Your task to perform on an android device: turn off smart reply in the gmail app Image 0: 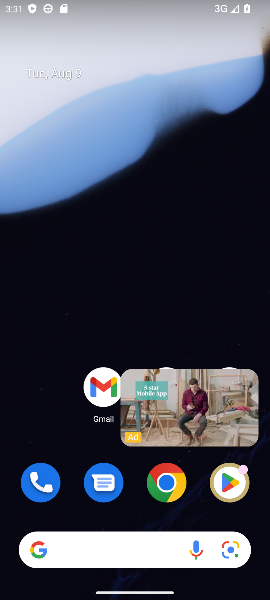
Step 0: click (243, 378)
Your task to perform on an android device: turn off smart reply in the gmail app Image 1: 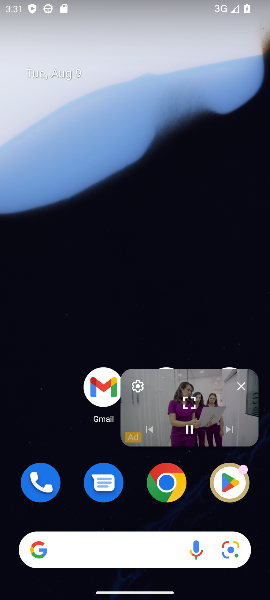
Step 1: click (237, 386)
Your task to perform on an android device: turn off smart reply in the gmail app Image 2: 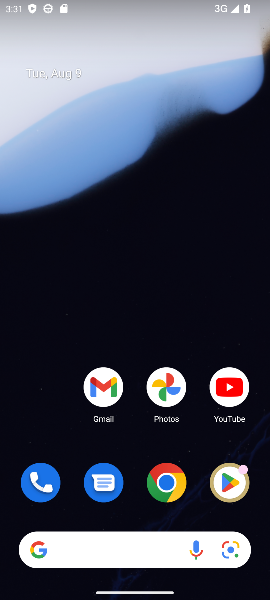
Step 2: click (116, 382)
Your task to perform on an android device: turn off smart reply in the gmail app Image 3: 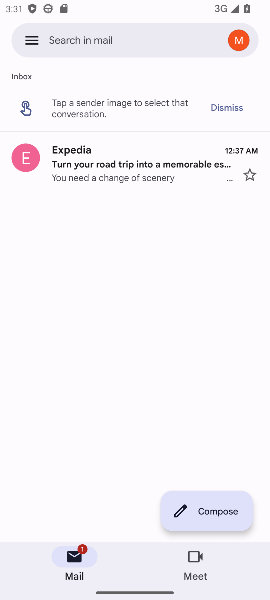
Step 3: click (24, 42)
Your task to perform on an android device: turn off smart reply in the gmail app Image 4: 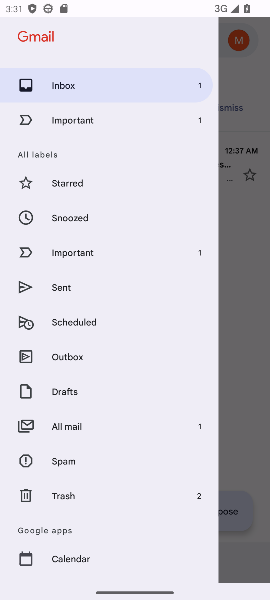
Step 4: drag from (84, 516) to (93, 278)
Your task to perform on an android device: turn off smart reply in the gmail app Image 5: 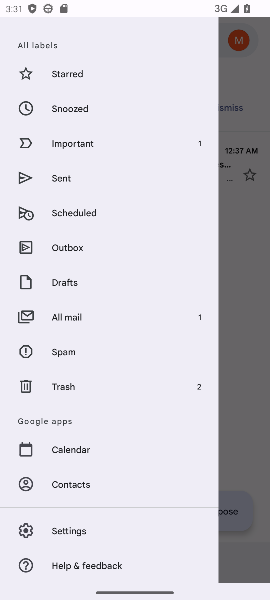
Step 5: click (74, 524)
Your task to perform on an android device: turn off smart reply in the gmail app Image 6: 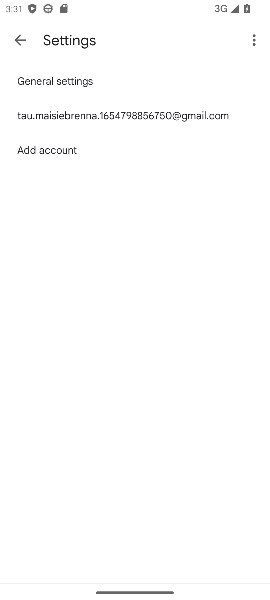
Step 6: click (95, 118)
Your task to perform on an android device: turn off smart reply in the gmail app Image 7: 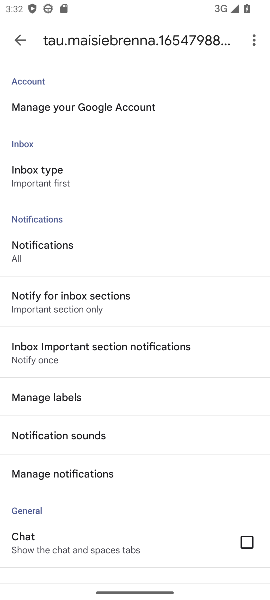
Step 7: drag from (112, 486) to (118, 202)
Your task to perform on an android device: turn off smart reply in the gmail app Image 8: 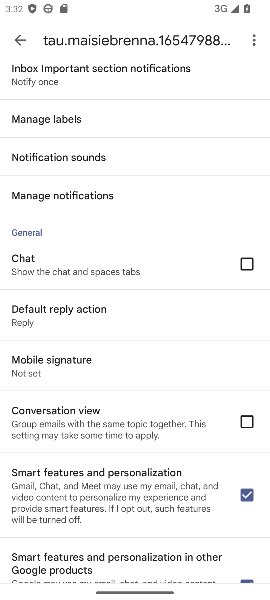
Step 8: drag from (108, 486) to (138, 344)
Your task to perform on an android device: turn off smart reply in the gmail app Image 9: 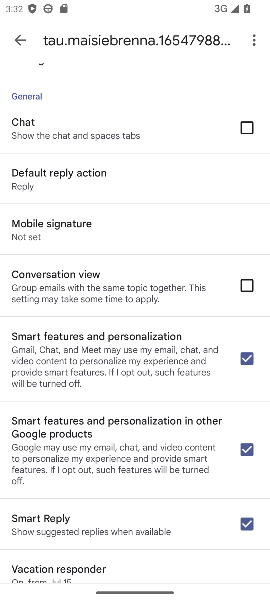
Step 9: click (243, 531)
Your task to perform on an android device: turn off smart reply in the gmail app Image 10: 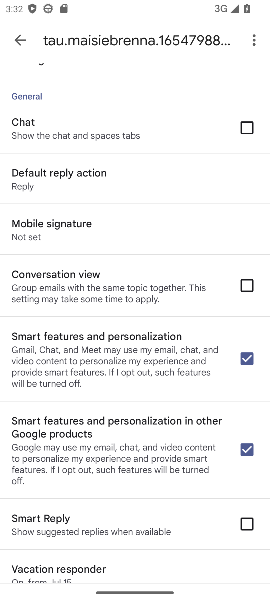
Step 10: task complete